Your task to perform on an android device: toggle improve location accuracy Image 0: 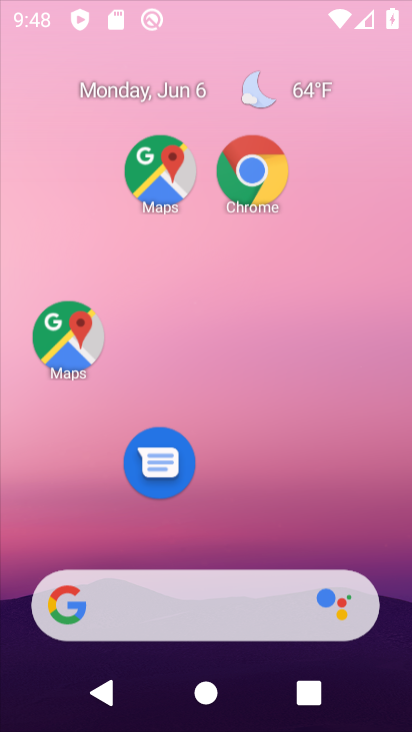
Step 0: press back button
Your task to perform on an android device: toggle improve location accuracy Image 1: 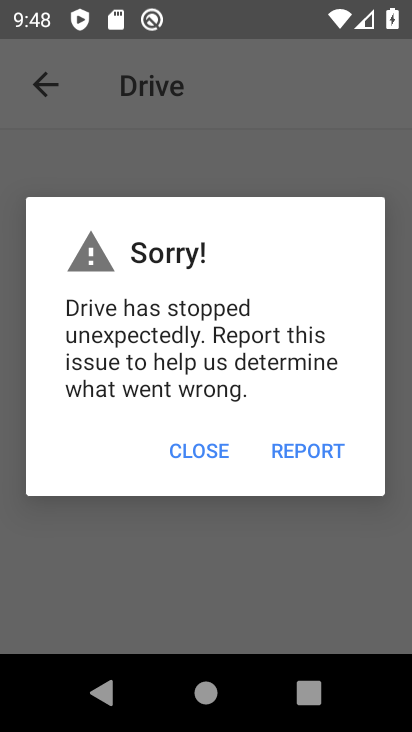
Step 1: drag from (270, 680) to (169, 192)
Your task to perform on an android device: toggle improve location accuracy Image 2: 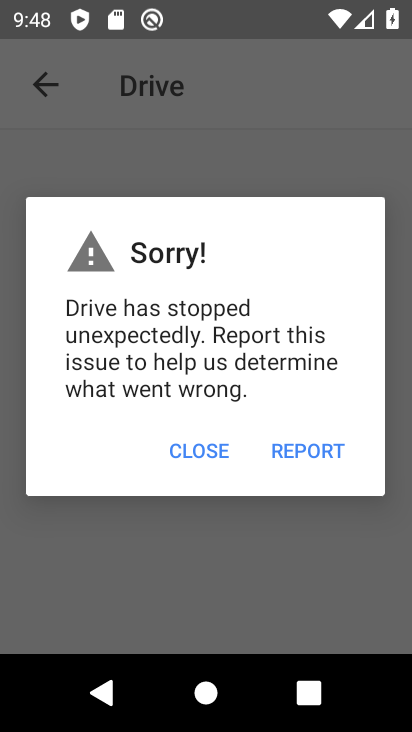
Step 2: click (195, 455)
Your task to perform on an android device: toggle improve location accuracy Image 3: 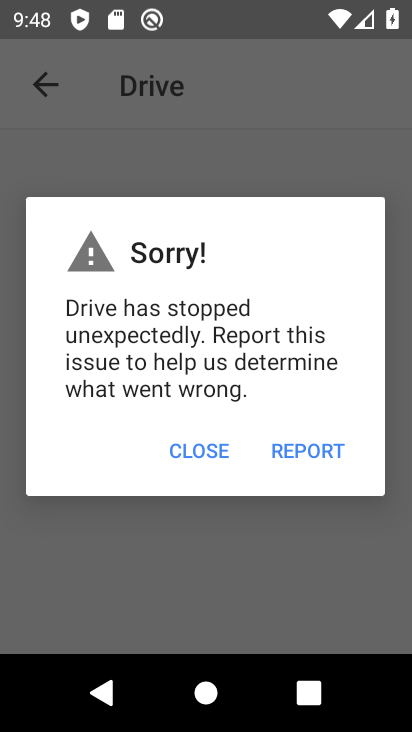
Step 3: click (195, 455)
Your task to perform on an android device: toggle improve location accuracy Image 4: 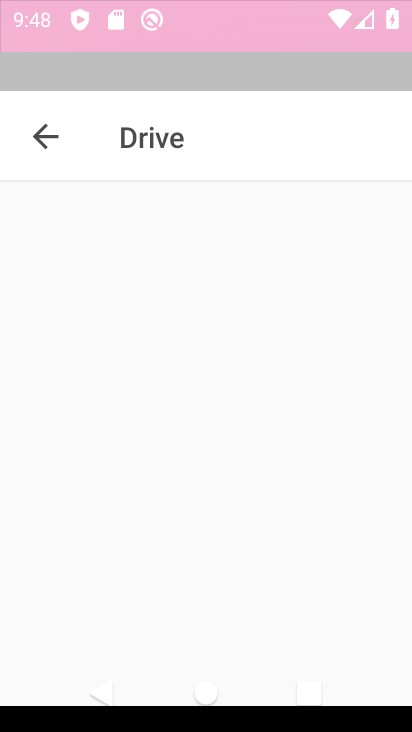
Step 4: click (195, 455)
Your task to perform on an android device: toggle improve location accuracy Image 5: 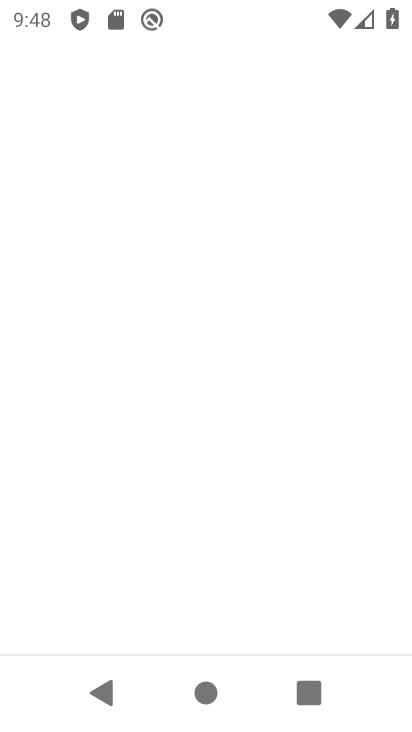
Step 5: drag from (207, 584) to (155, 214)
Your task to perform on an android device: toggle improve location accuracy Image 6: 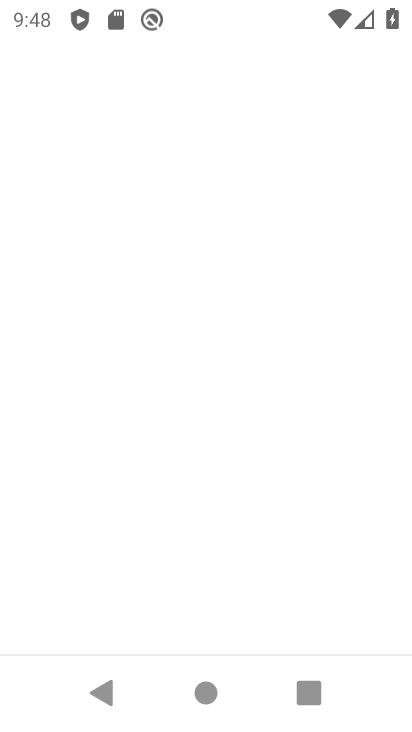
Step 6: press home button
Your task to perform on an android device: toggle improve location accuracy Image 7: 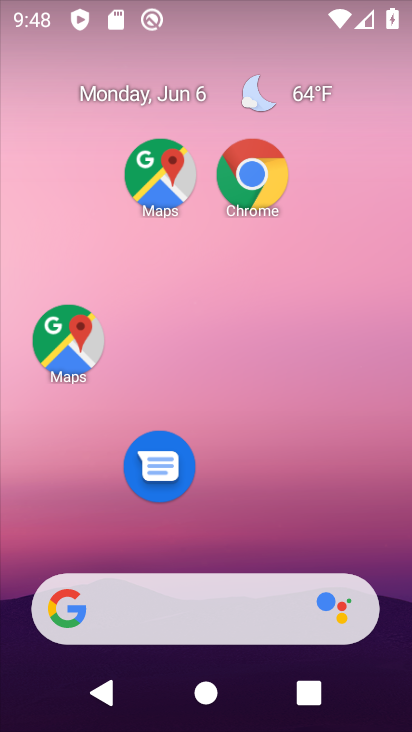
Step 7: drag from (269, 628) to (200, 146)
Your task to perform on an android device: toggle improve location accuracy Image 8: 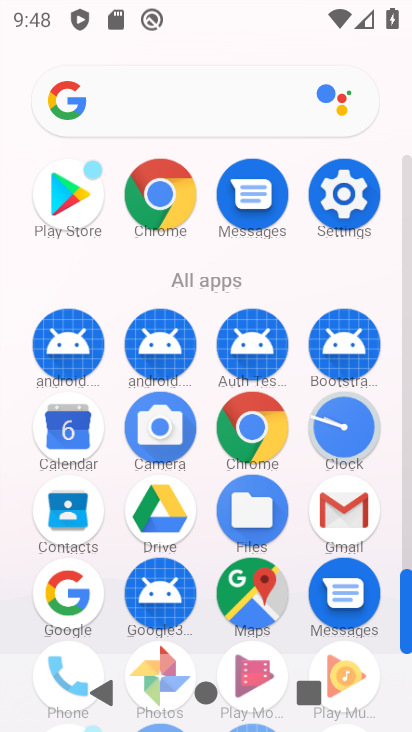
Step 8: click (339, 202)
Your task to perform on an android device: toggle improve location accuracy Image 9: 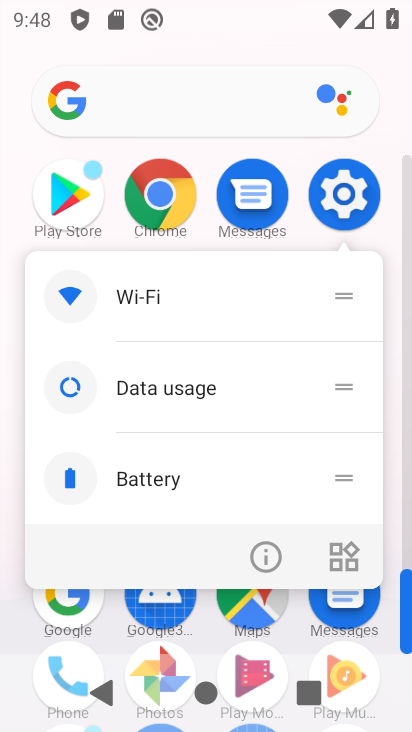
Step 9: click (326, 196)
Your task to perform on an android device: toggle improve location accuracy Image 10: 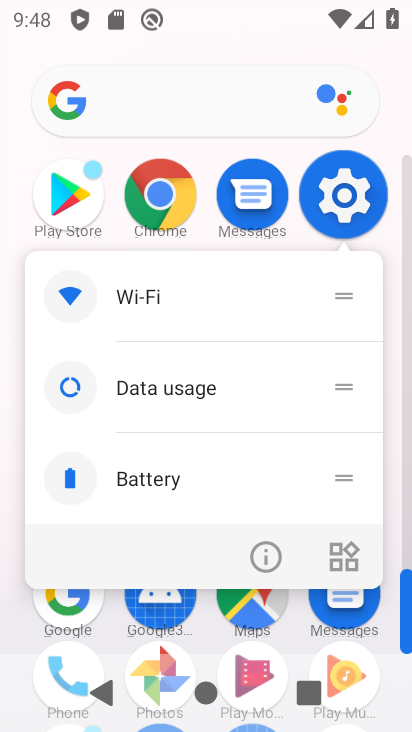
Step 10: click (327, 196)
Your task to perform on an android device: toggle improve location accuracy Image 11: 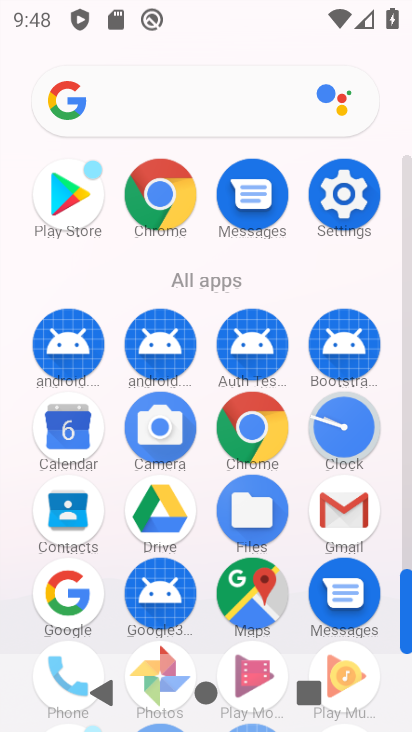
Step 11: click (334, 200)
Your task to perform on an android device: toggle improve location accuracy Image 12: 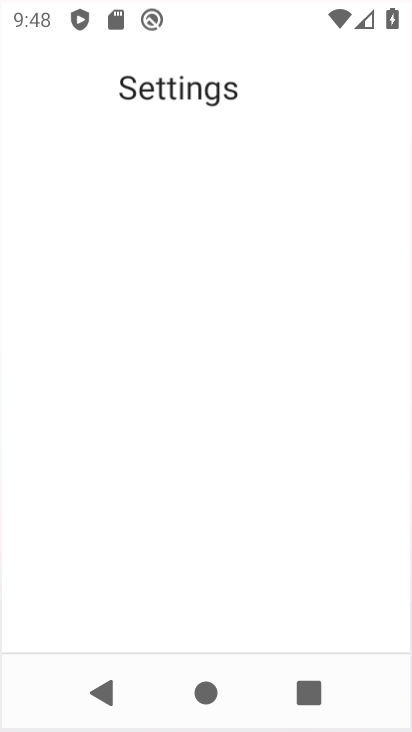
Step 12: click (339, 201)
Your task to perform on an android device: toggle improve location accuracy Image 13: 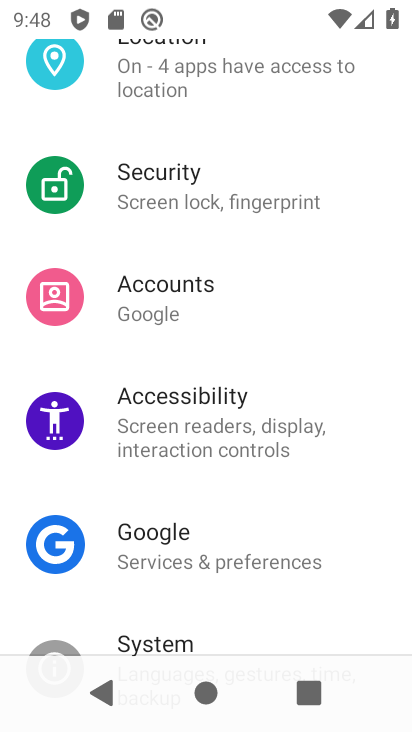
Step 13: click (339, 201)
Your task to perform on an android device: toggle improve location accuracy Image 14: 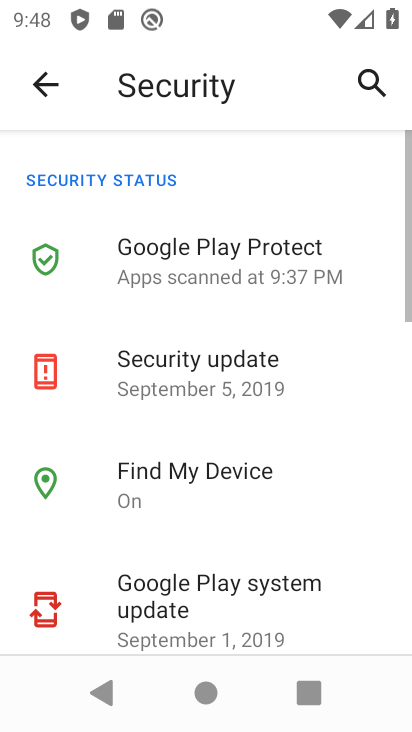
Step 14: click (35, 90)
Your task to perform on an android device: toggle improve location accuracy Image 15: 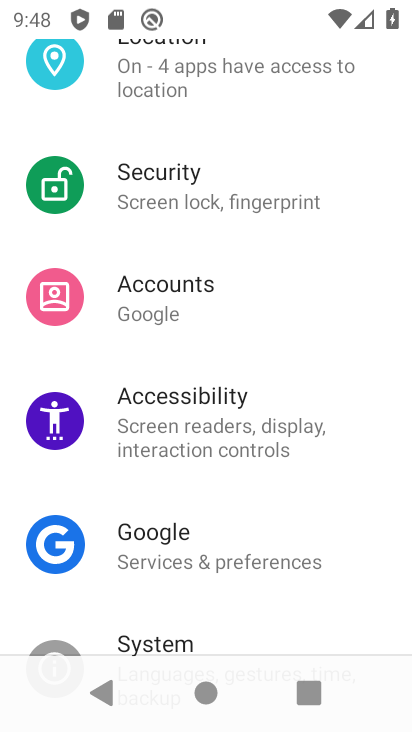
Step 15: drag from (174, 555) to (174, 249)
Your task to perform on an android device: toggle improve location accuracy Image 16: 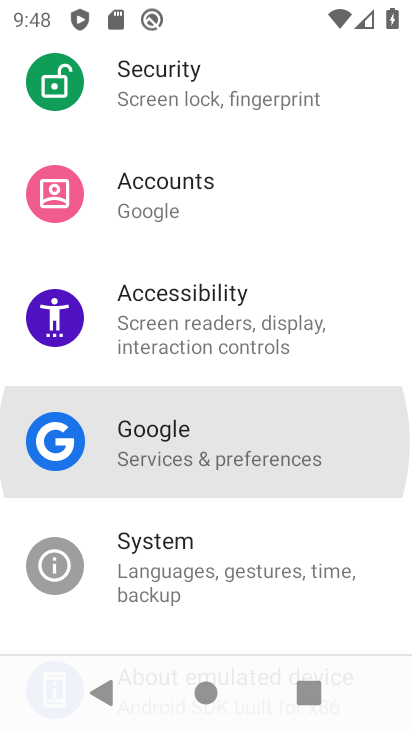
Step 16: drag from (182, 507) to (181, 300)
Your task to perform on an android device: toggle improve location accuracy Image 17: 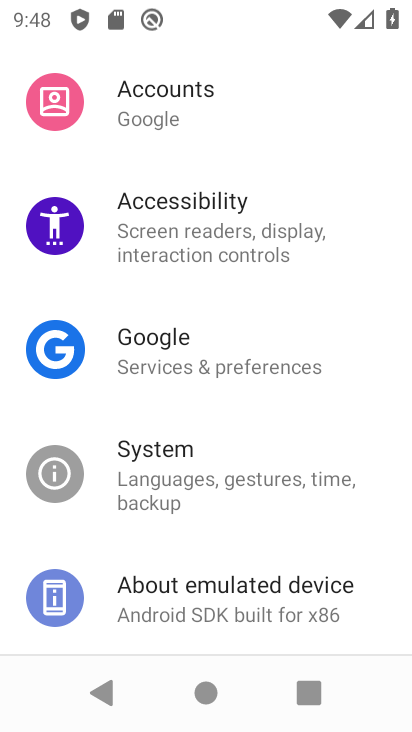
Step 17: drag from (181, 289) to (260, 550)
Your task to perform on an android device: toggle improve location accuracy Image 18: 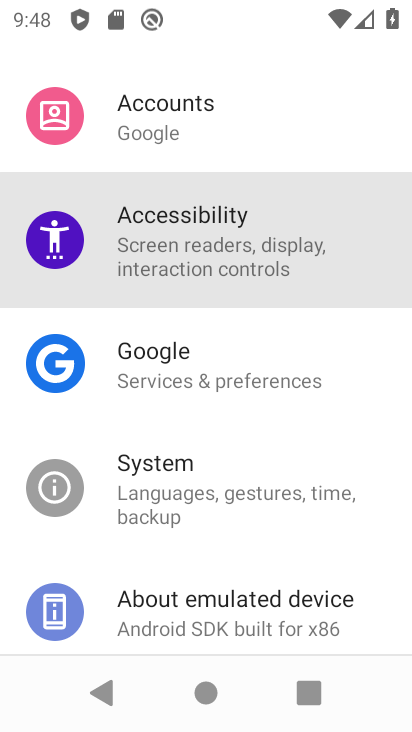
Step 18: drag from (162, 235) to (233, 474)
Your task to perform on an android device: toggle improve location accuracy Image 19: 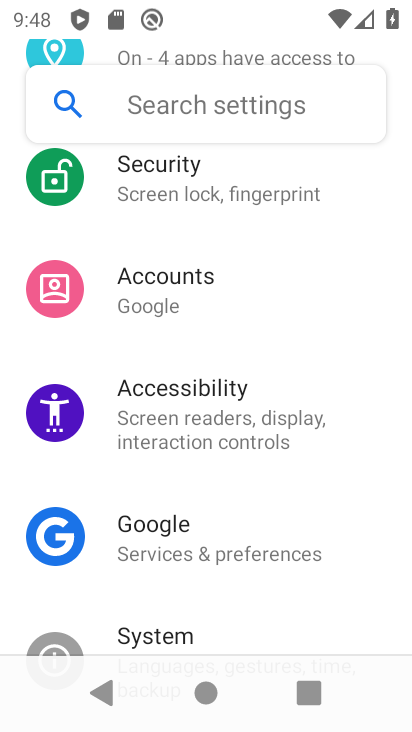
Step 19: drag from (215, 262) to (286, 551)
Your task to perform on an android device: toggle improve location accuracy Image 20: 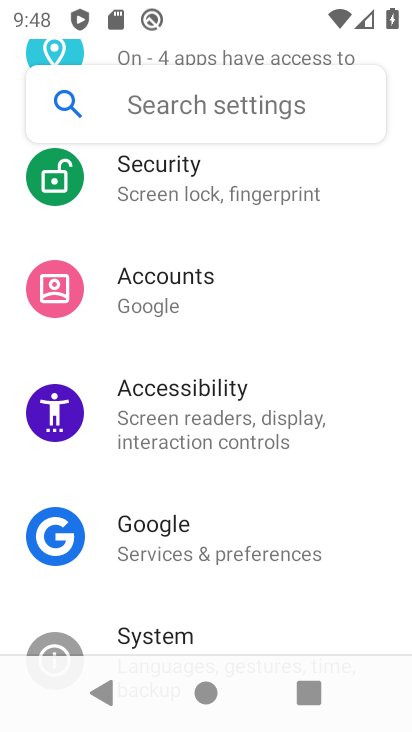
Step 20: drag from (206, 252) to (251, 535)
Your task to perform on an android device: toggle improve location accuracy Image 21: 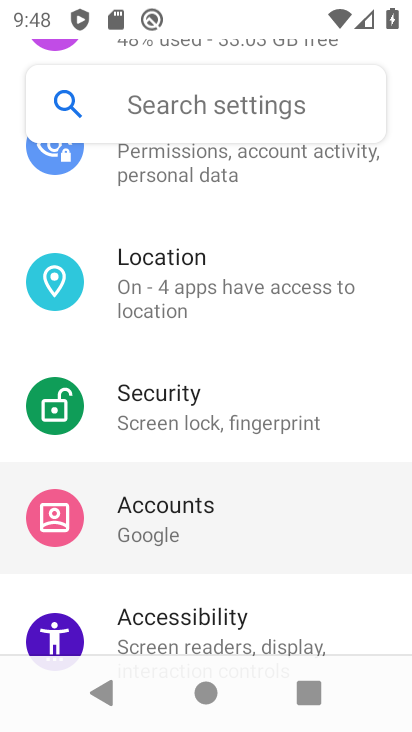
Step 21: drag from (132, 292) to (179, 542)
Your task to perform on an android device: toggle improve location accuracy Image 22: 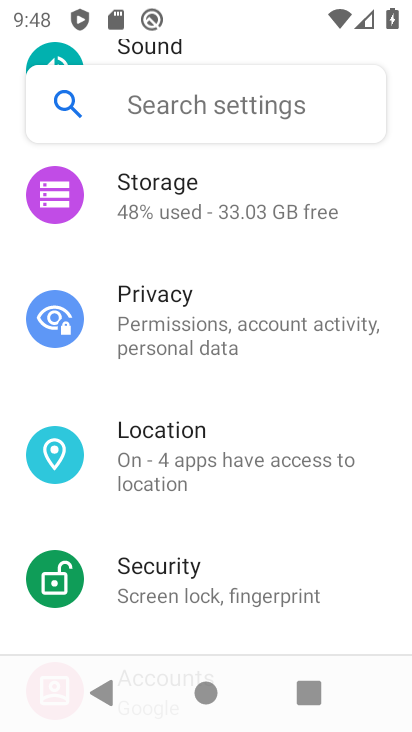
Step 22: click (170, 457)
Your task to perform on an android device: toggle improve location accuracy Image 23: 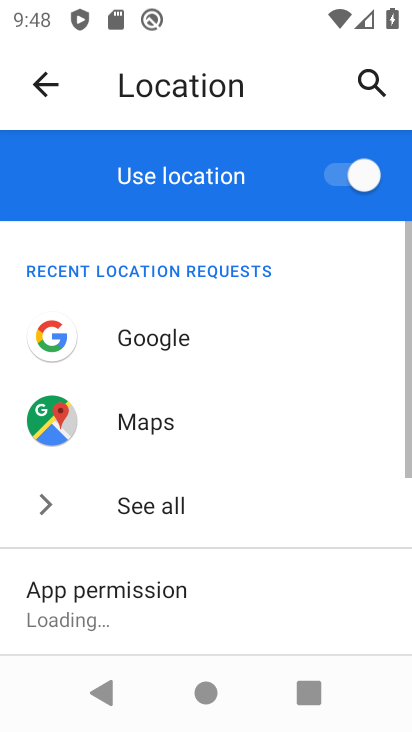
Step 23: drag from (268, 575) to (224, 256)
Your task to perform on an android device: toggle improve location accuracy Image 24: 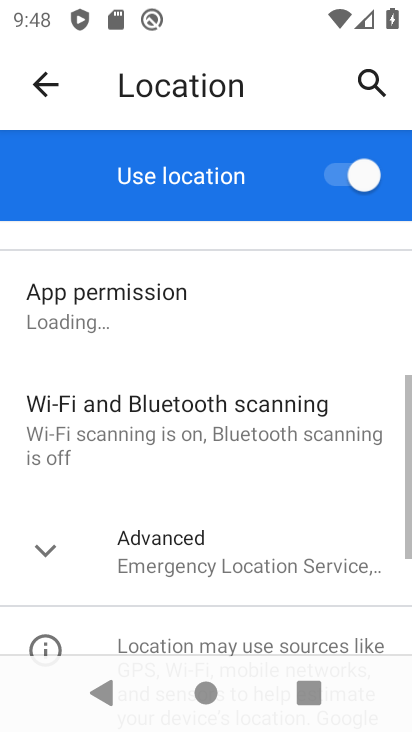
Step 24: drag from (269, 540) to (275, 288)
Your task to perform on an android device: toggle improve location accuracy Image 25: 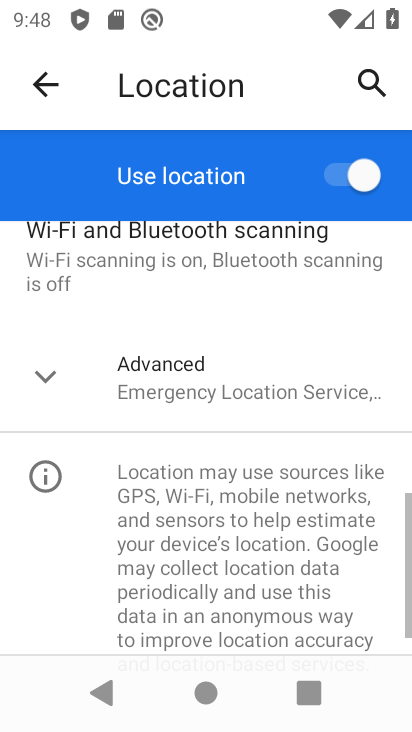
Step 25: click (353, 185)
Your task to perform on an android device: toggle improve location accuracy Image 26: 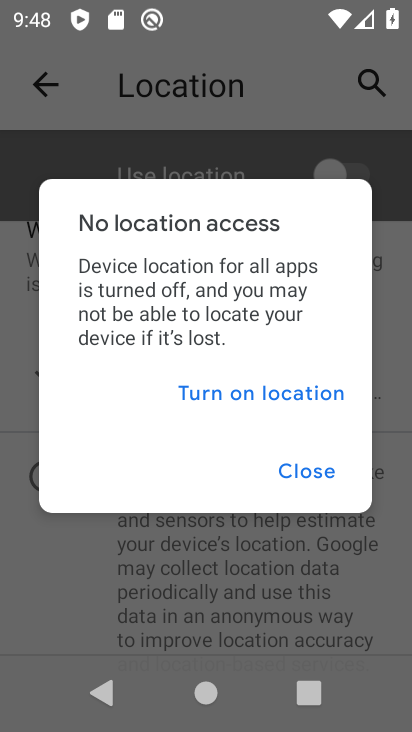
Step 26: task complete